Your task to perform on an android device: toggle improve location accuracy Image 0: 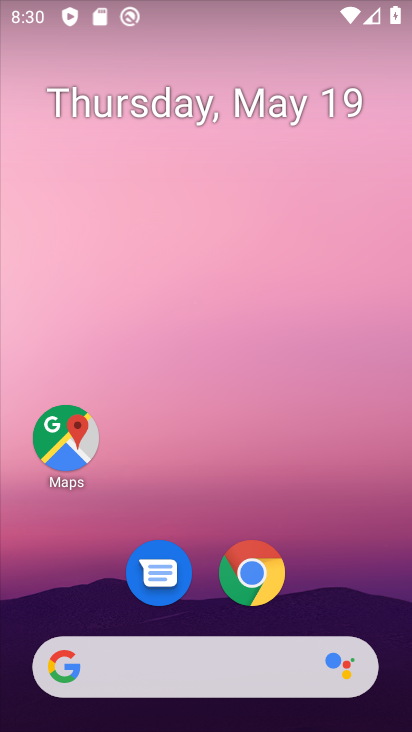
Step 0: drag from (358, 616) to (296, 0)
Your task to perform on an android device: toggle improve location accuracy Image 1: 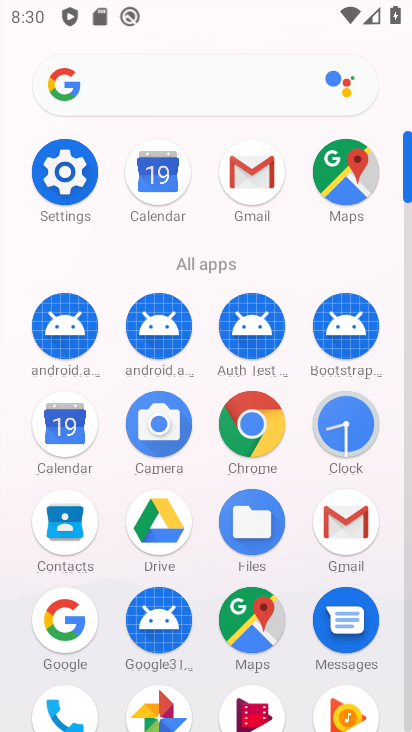
Step 1: click (59, 167)
Your task to perform on an android device: toggle improve location accuracy Image 2: 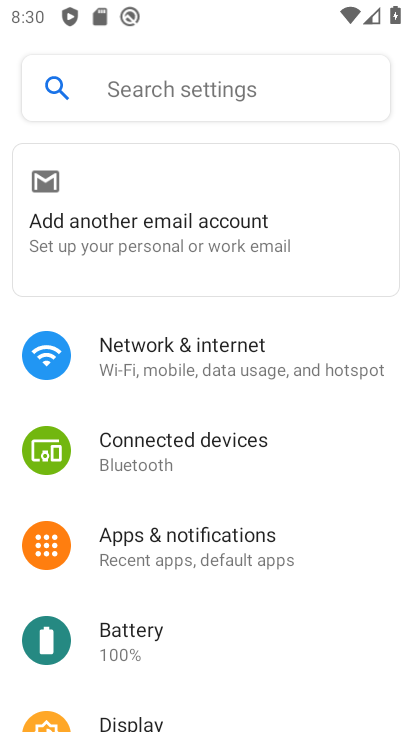
Step 2: drag from (322, 557) to (287, 148)
Your task to perform on an android device: toggle improve location accuracy Image 3: 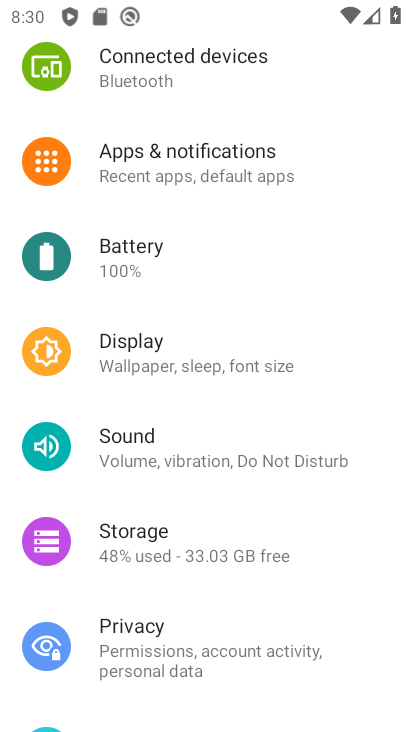
Step 3: drag from (207, 543) to (210, 228)
Your task to perform on an android device: toggle improve location accuracy Image 4: 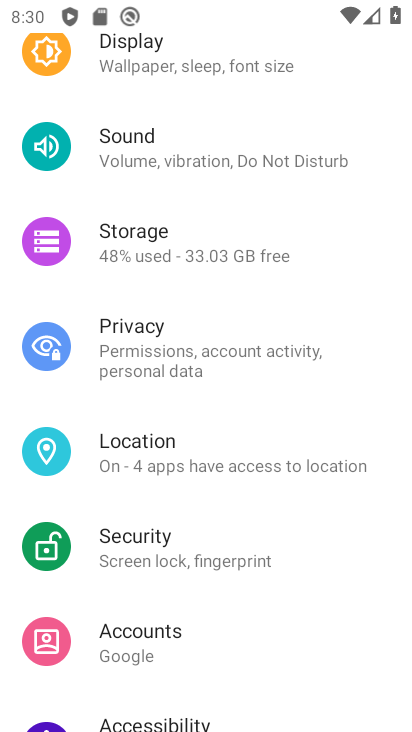
Step 4: click (144, 449)
Your task to perform on an android device: toggle improve location accuracy Image 5: 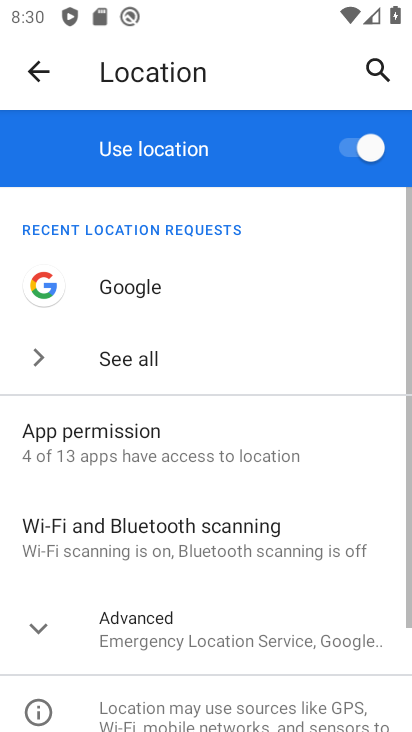
Step 5: drag from (288, 519) to (268, 163)
Your task to perform on an android device: toggle improve location accuracy Image 6: 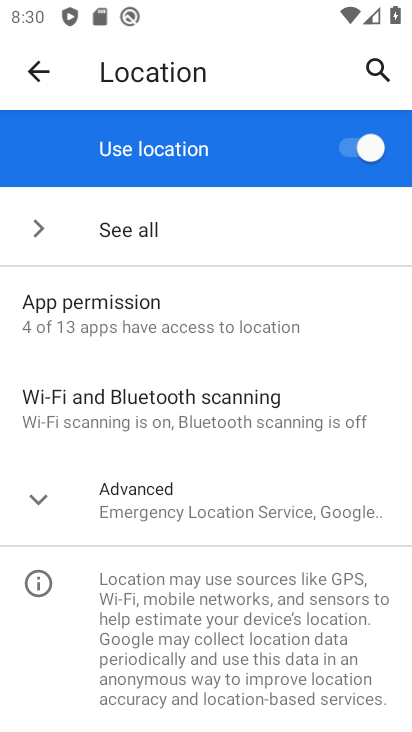
Step 6: click (36, 515)
Your task to perform on an android device: toggle improve location accuracy Image 7: 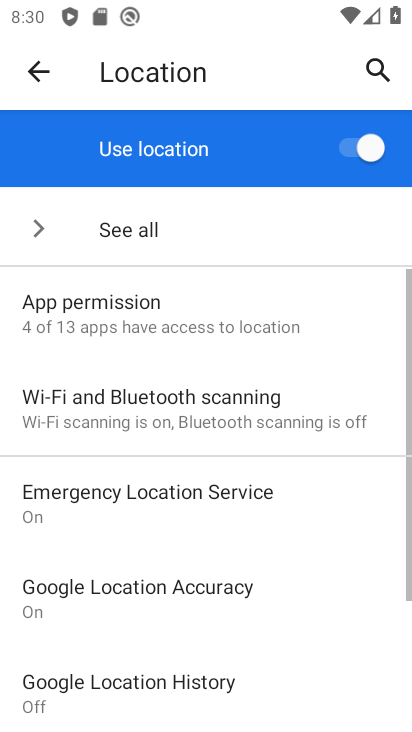
Step 7: click (101, 582)
Your task to perform on an android device: toggle improve location accuracy Image 8: 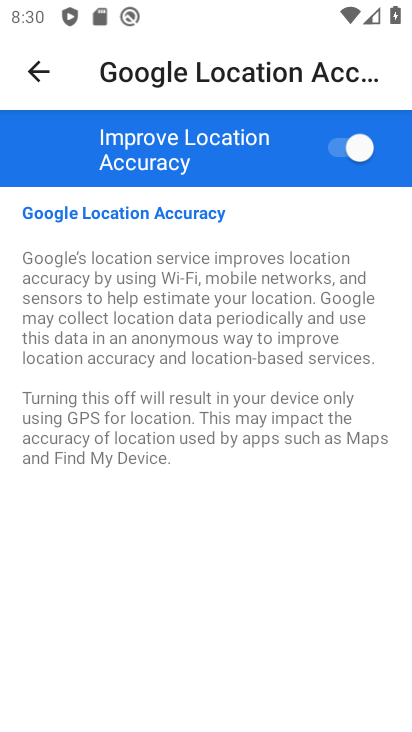
Step 8: click (345, 150)
Your task to perform on an android device: toggle improve location accuracy Image 9: 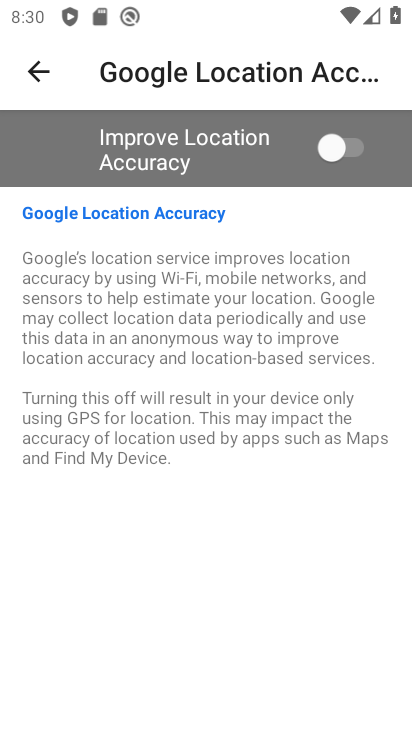
Step 9: task complete